Your task to perform on an android device: turn on the 24-hour format for clock Image 0: 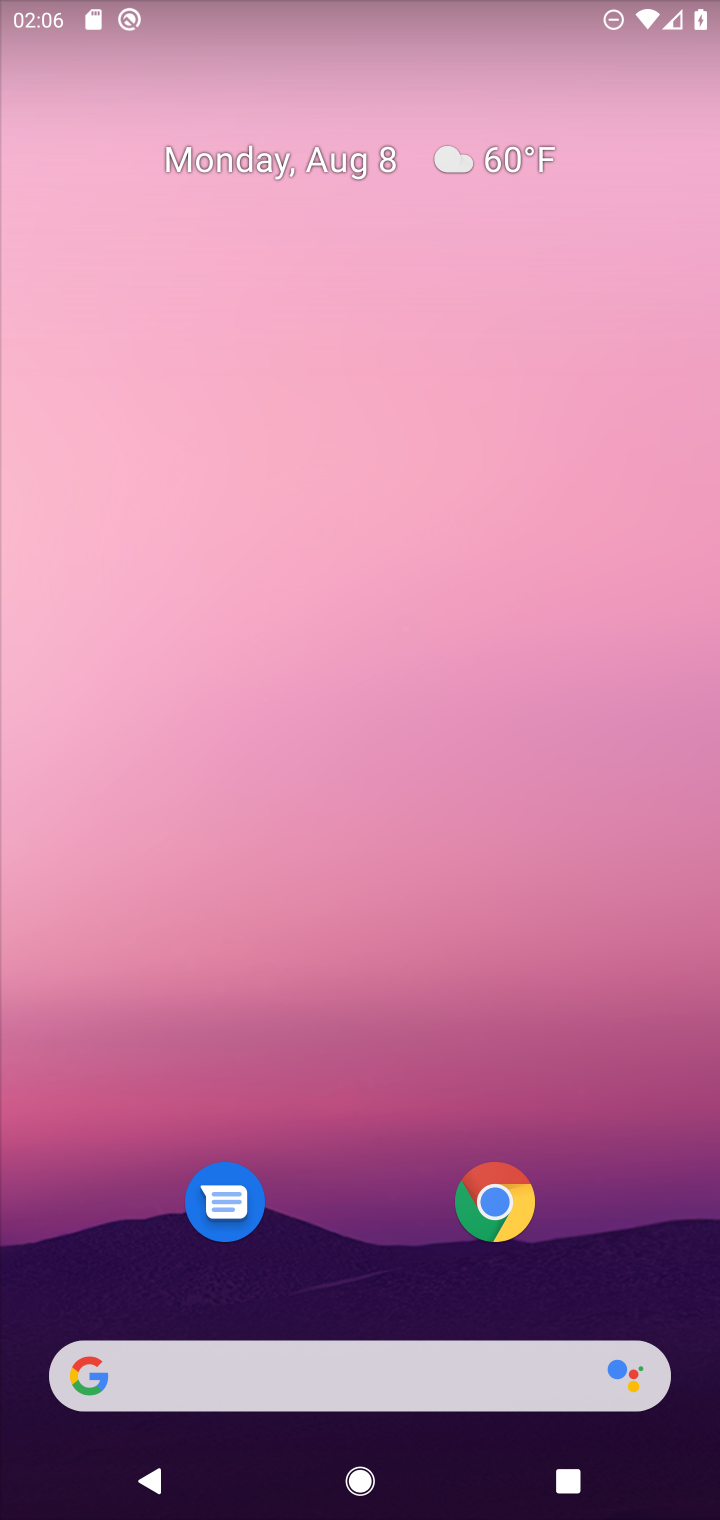
Step 0: press home button
Your task to perform on an android device: turn on the 24-hour format for clock Image 1: 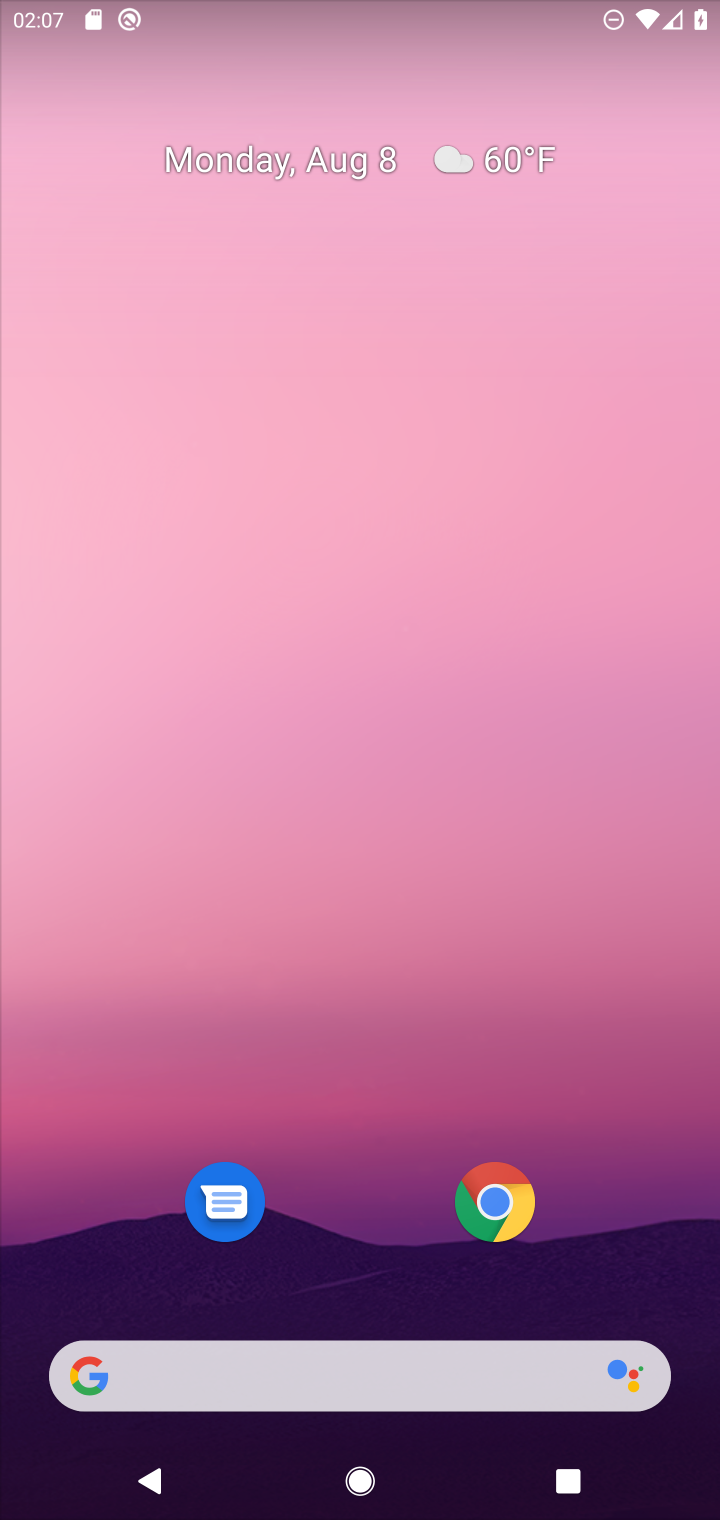
Step 1: drag from (404, 1190) to (479, 93)
Your task to perform on an android device: turn on the 24-hour format for clock Image 2: 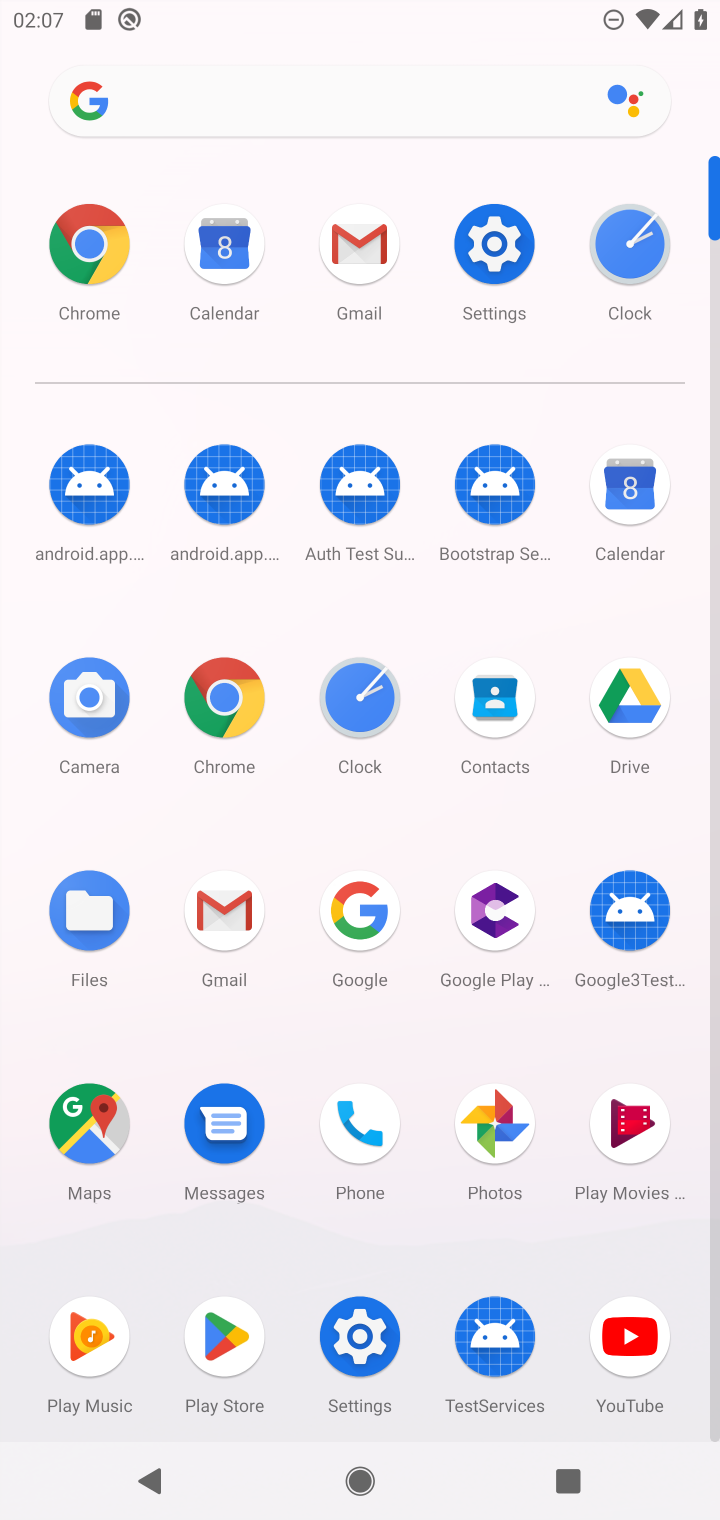
Step 2: click (345, 693)
Your task to perform on an android device: turn on the 24-hour format for clock Image 3: 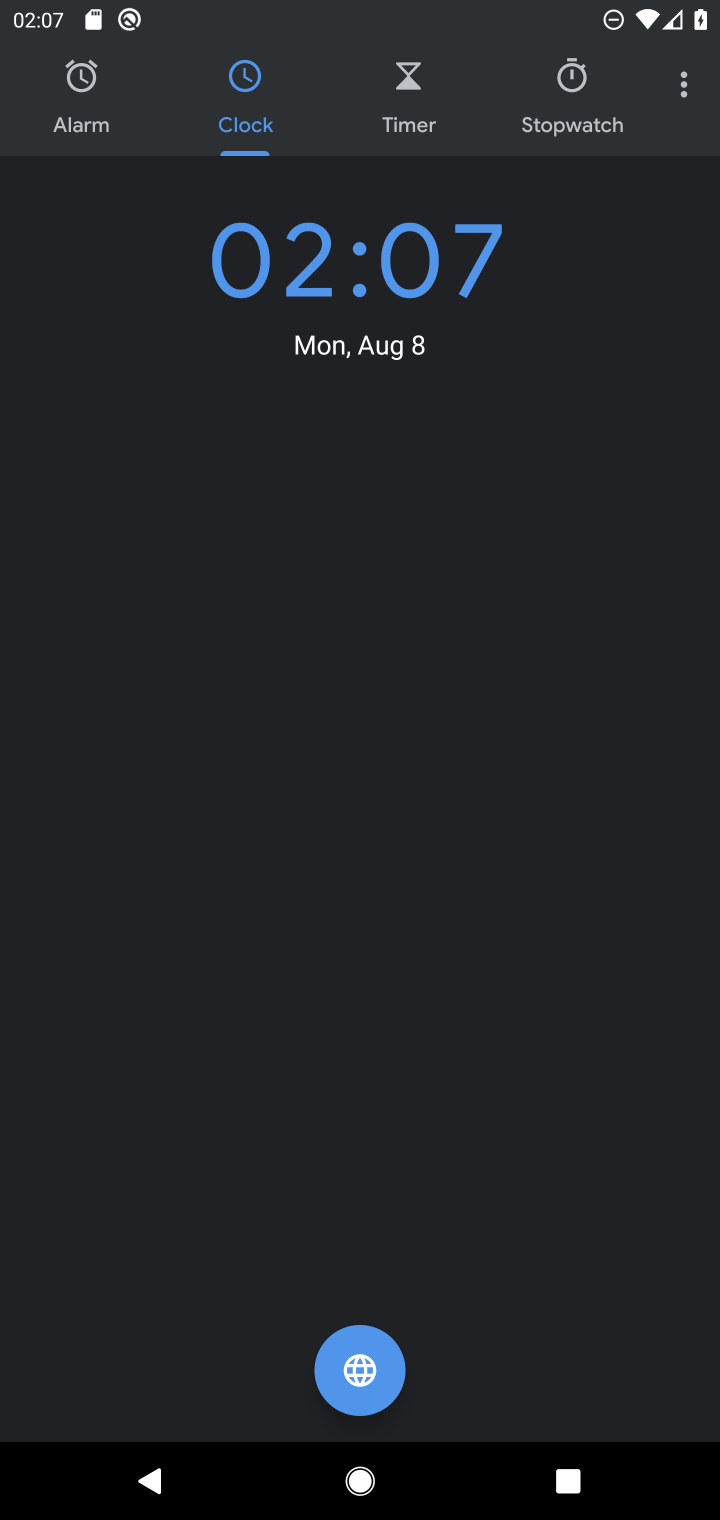
Step 3: click (681, 84)
Your task to perform on an android device: turn on the 24-hour format for clock Image 4: 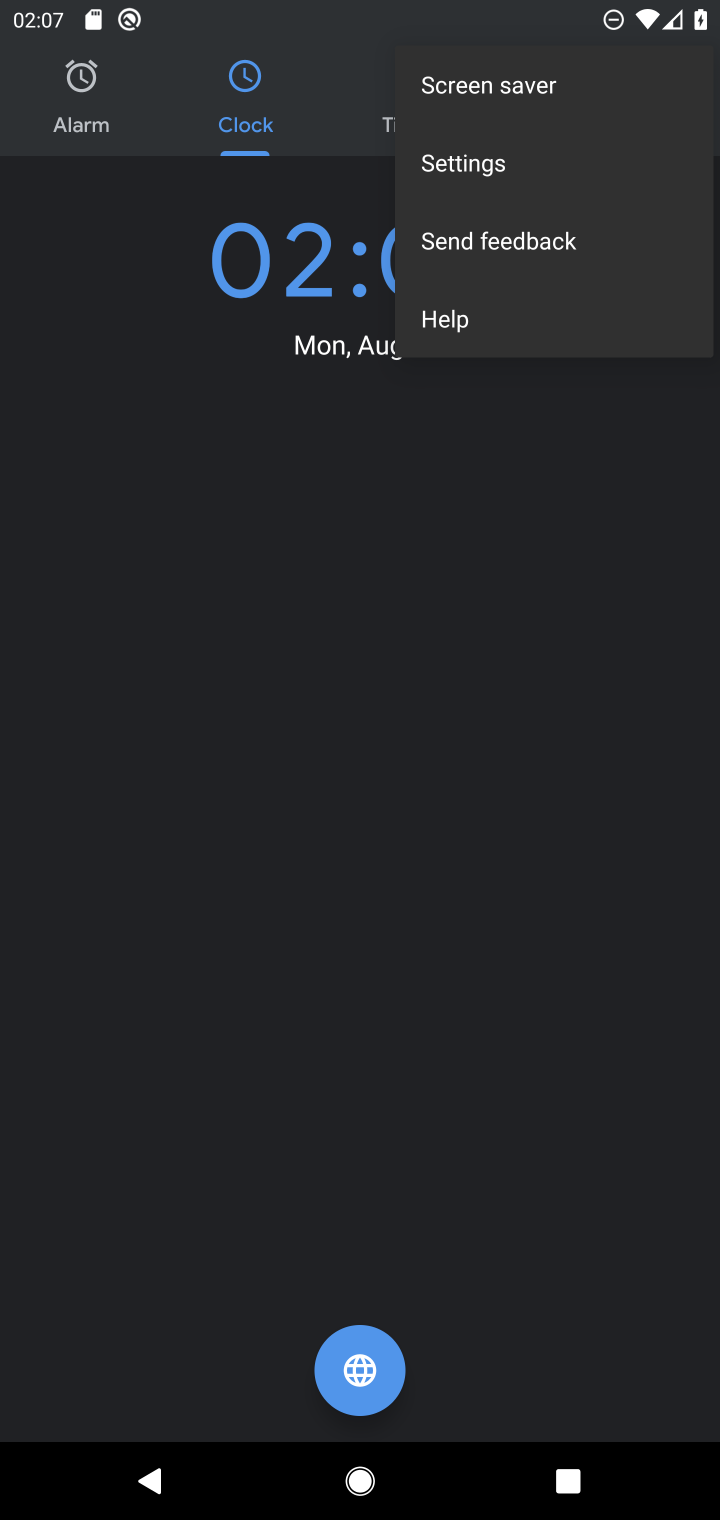
Step 4: click (481, 169)
Your task to perform on an android device: turn on the 24-hour format for clock Image 5: 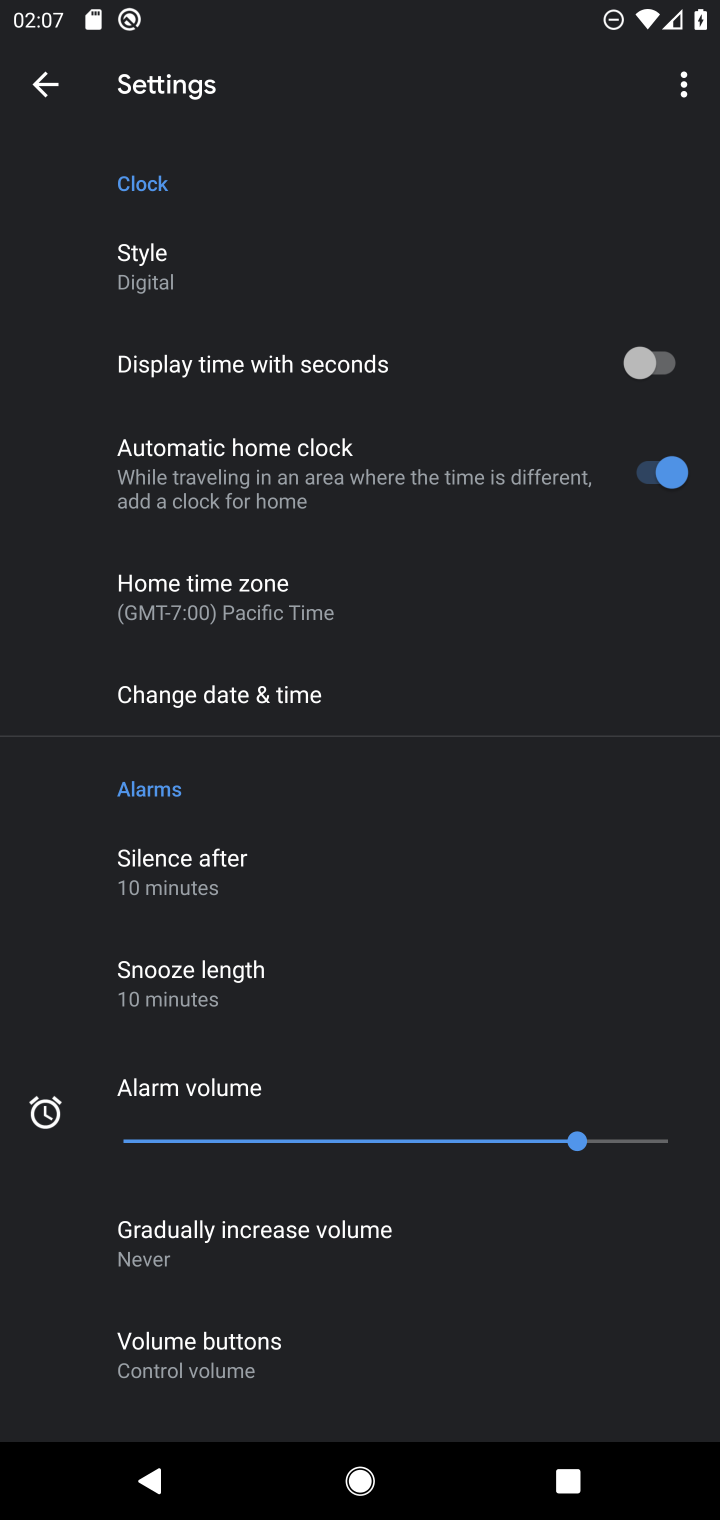
Step 5: drag from (464, 758) to (472, 593)
Your task to perform on an android device: turn on the 24-hour format for clock Image 6: 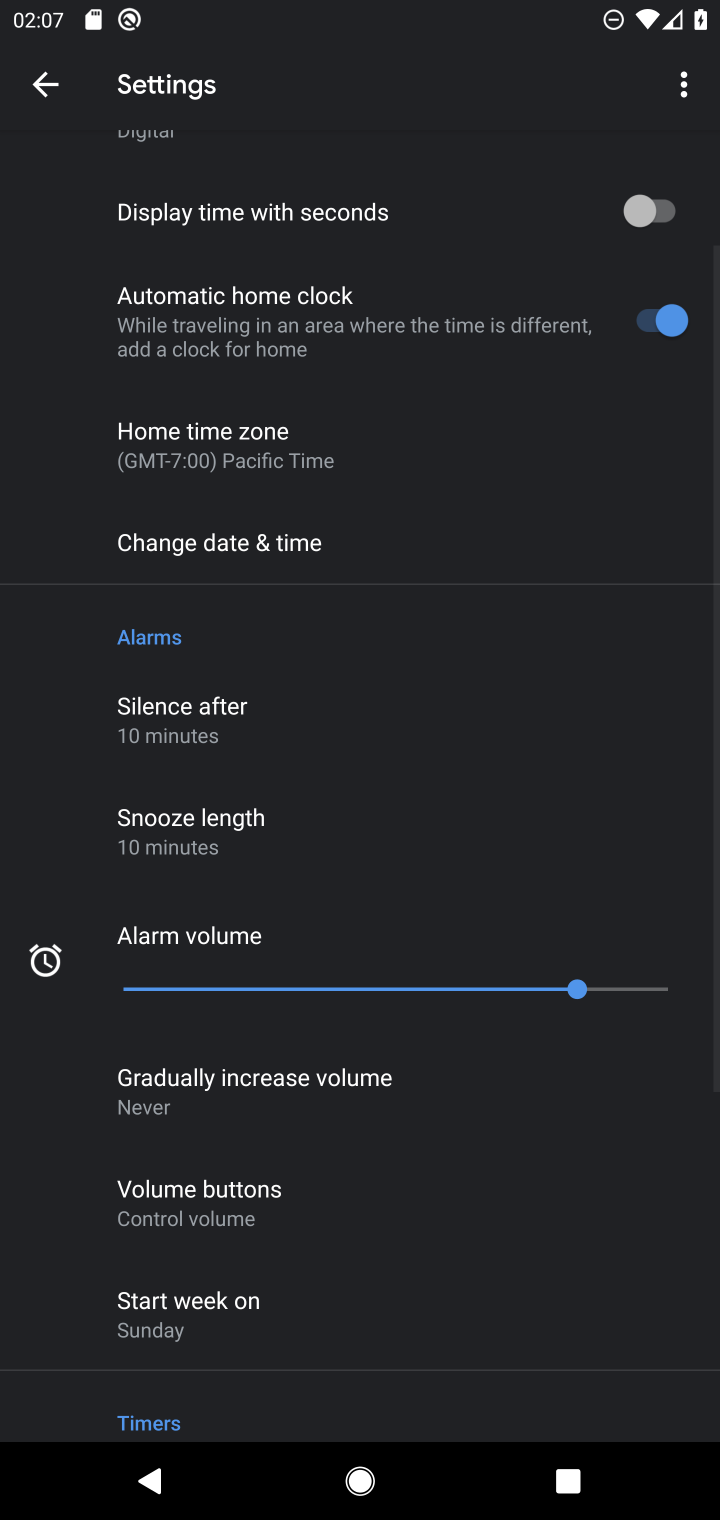
Step 6: drag from (500, 770) to (542, 550)
Your task to perform on an android device: turn on the 24-hour format for clock Image 7: 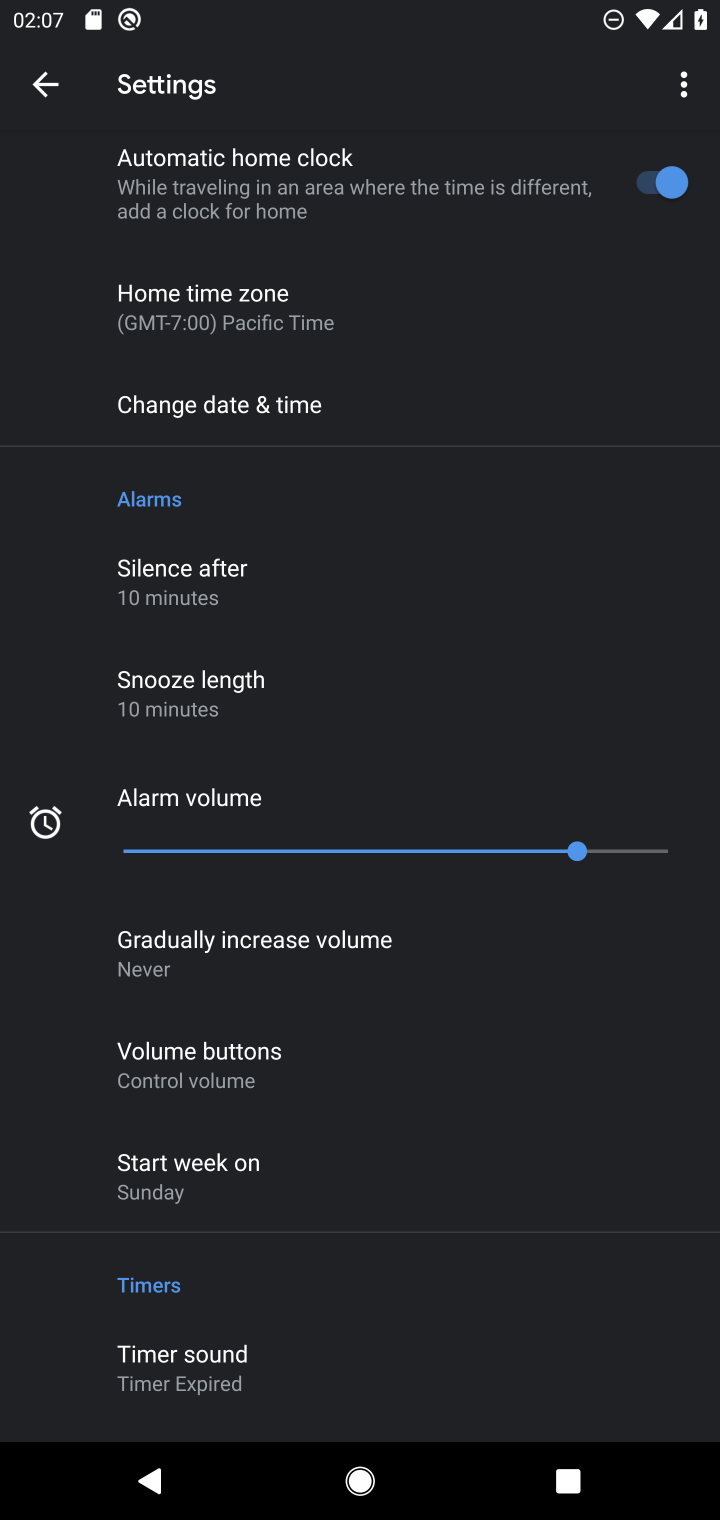
Step 7: drag from (510, 756) to (524, 591)
Your task to perform on an android device: turn on the 24-hour format for clock Image 8: 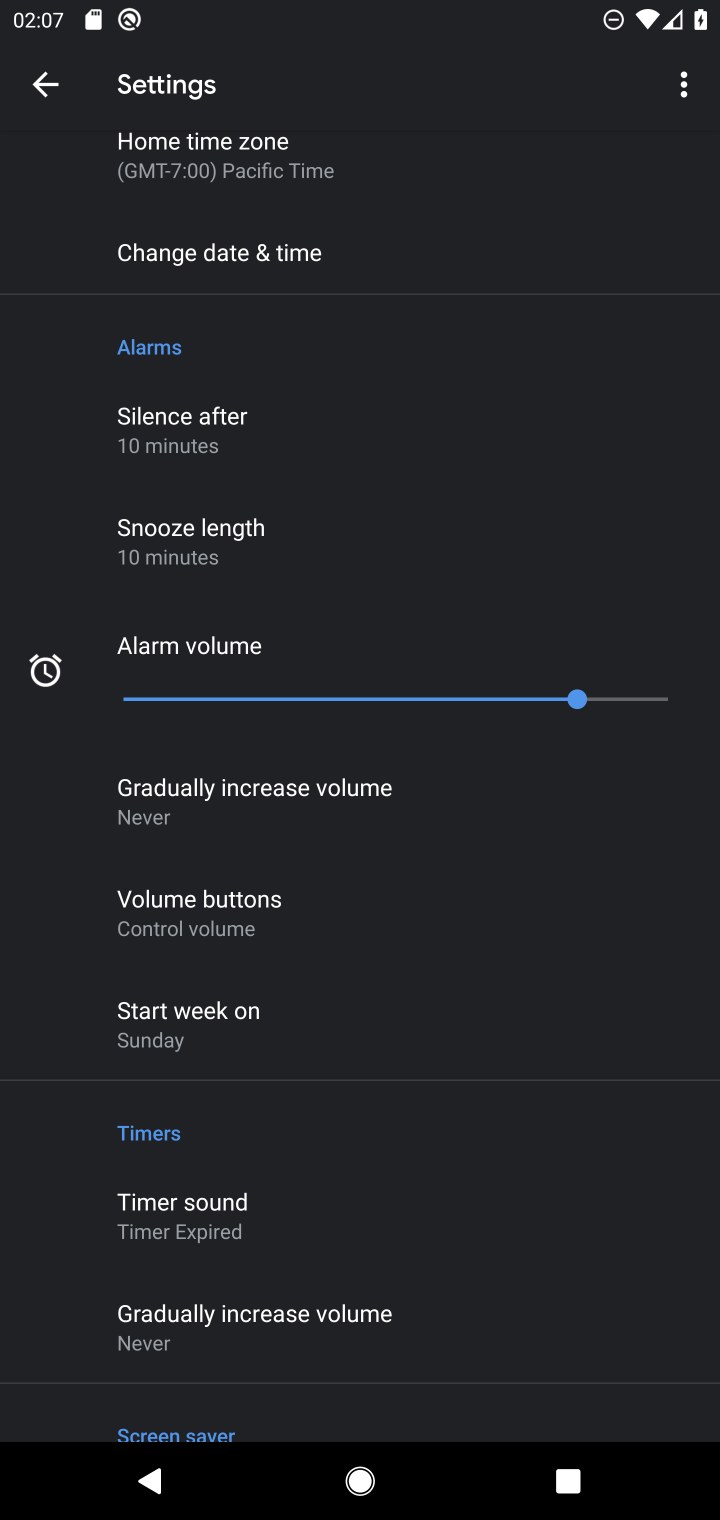
Step 8: drag from (405, 944) to (462, 668)
Your task to perform on an android device: turn on the 24-hour format for clock Image 9: 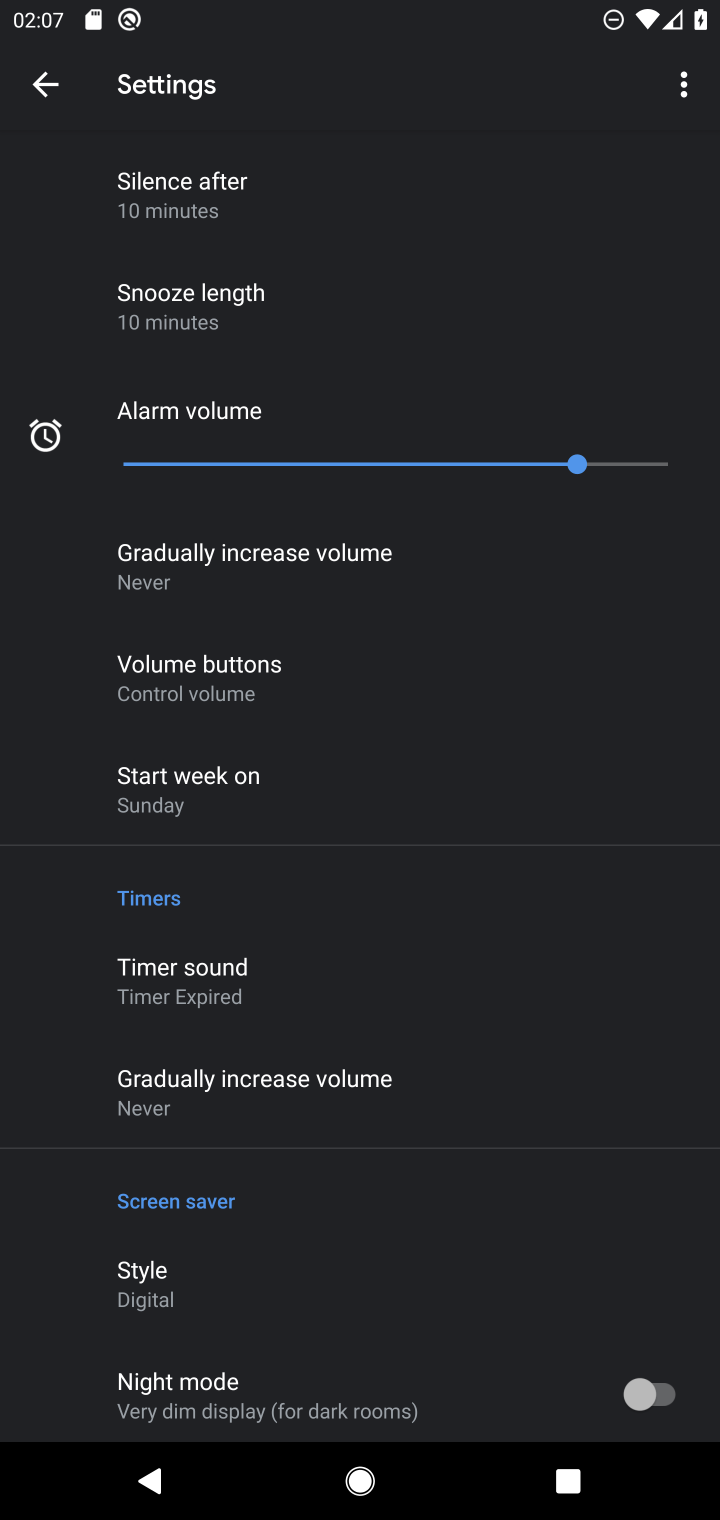
Step 9: drag from (487, 758) to (496, 853)
Your task to perform on an android device: turn on the 24-hour format for clock Image 10: 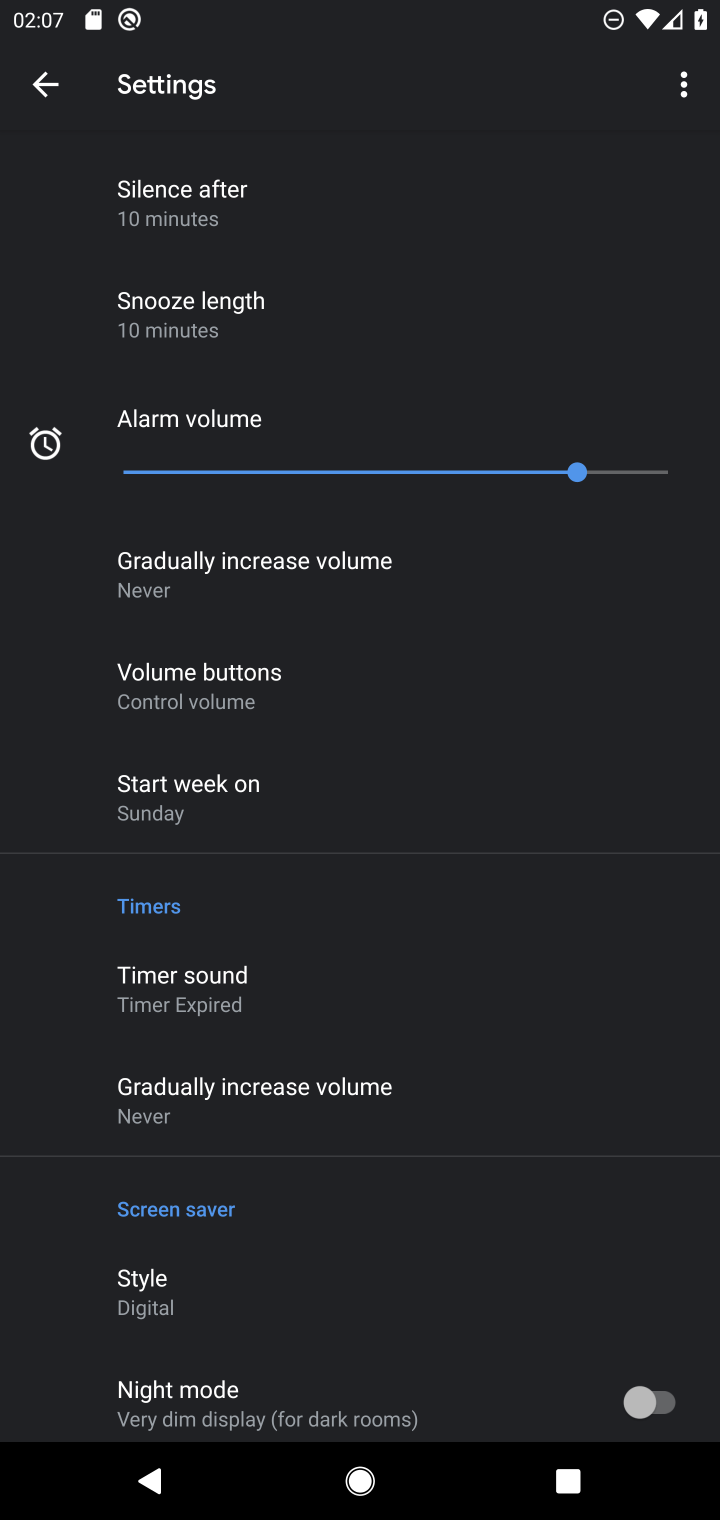
Step 10: drag from (558, 304) to (506, 743)
Your task to perform on an android device: turn on the 24-hour format for clock Image 11: 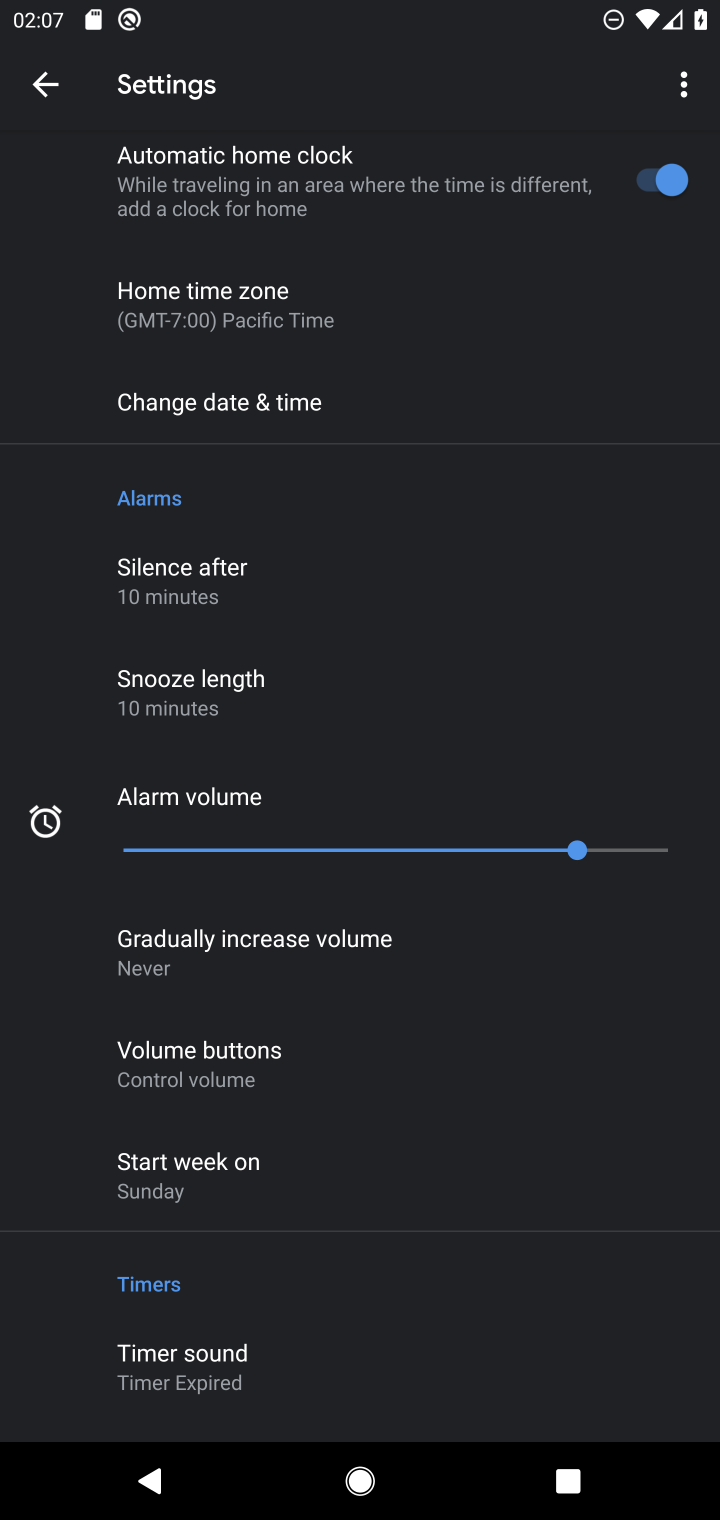
Step 11: drag from (481, 353) to (466, 687)
Your task to perform on an android device: turn on the 24-hour format for clock Image 12: 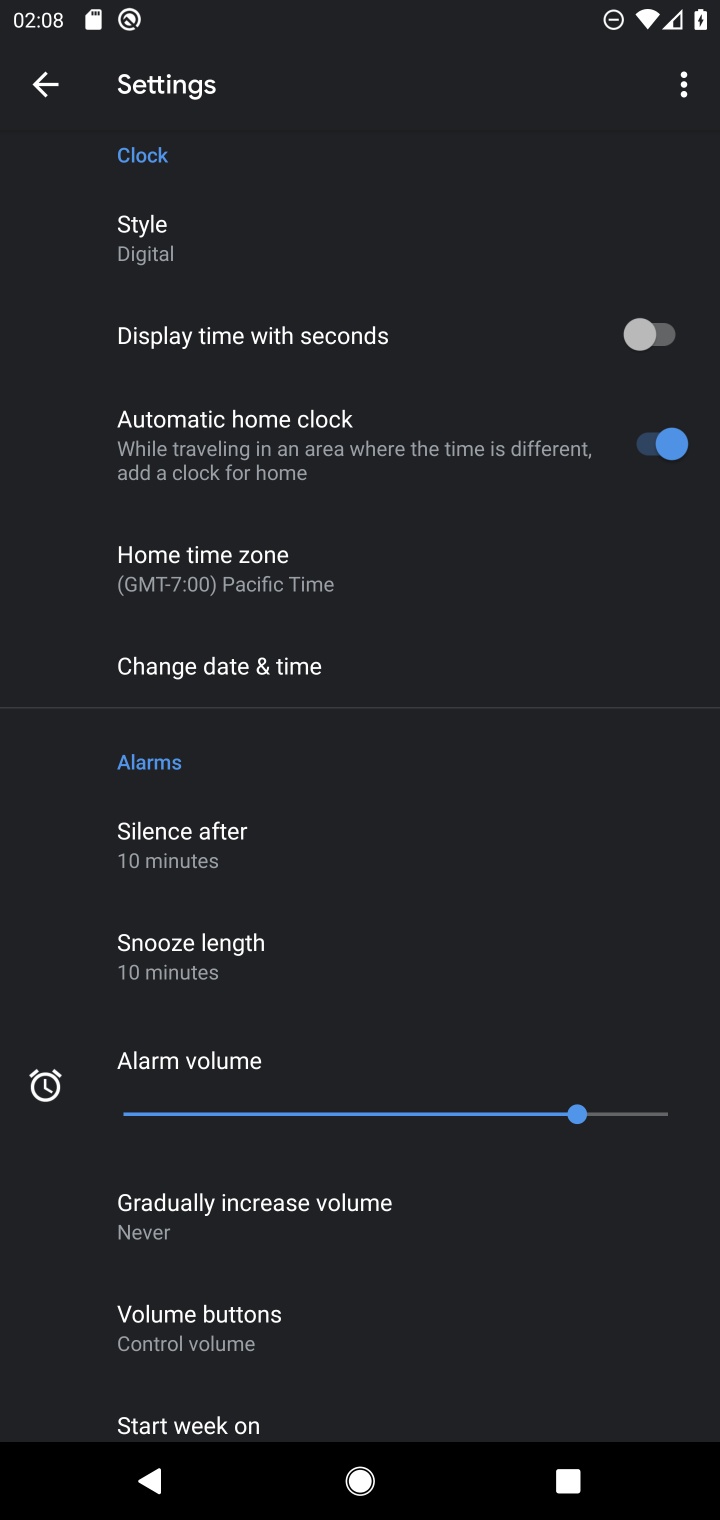
Step 12: click (337, 661)
Your task to perform on an android device: turn on the 24-hour format for clock Image 13: 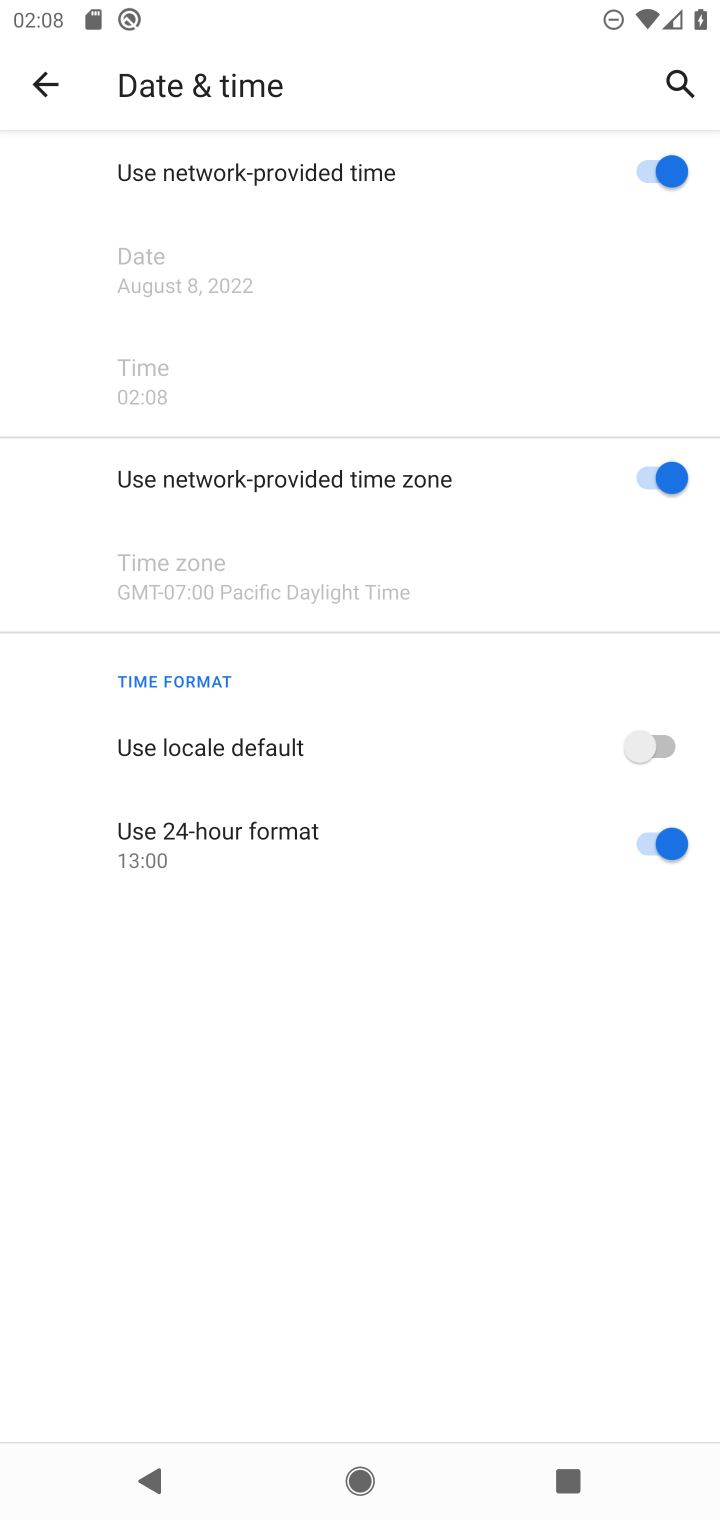
Step 13: task complete